Your task to perform on an android device: Search for Italian restaurants on Maps Image 0: 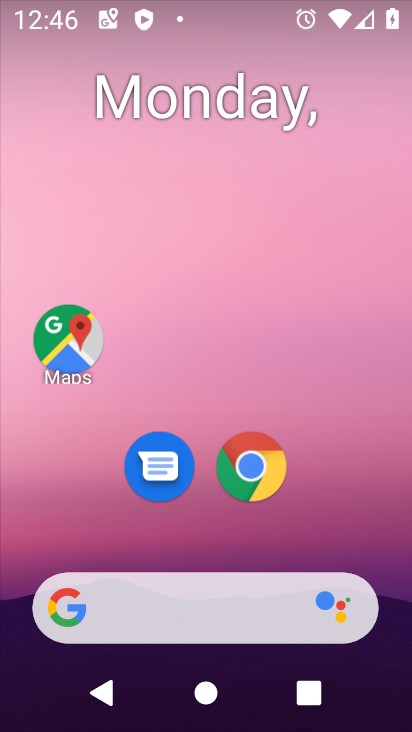
Step 0: drag from (387, 623) to (338, 66)
Your task to perform on an android device: Search for Italian restaurants on Maps Image 1: 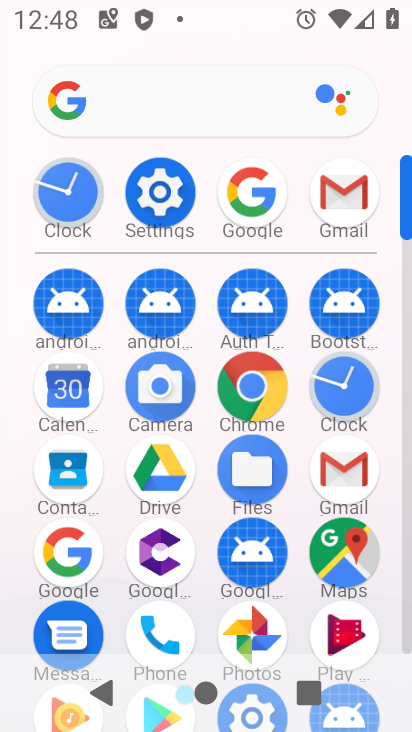
Step 1: click (349, 577)
Your task to perform on an android device: Search for Italian restaurants on Maps Image 2: 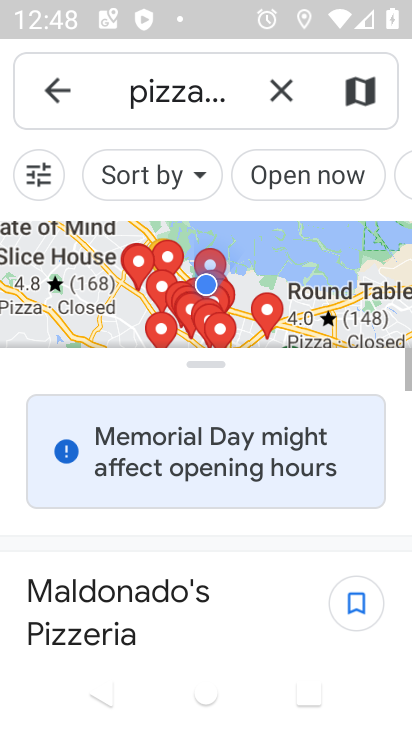
Step 2: click (298, 100)
Your task to perform on an android device: Search for Italian restaurants on Maps Image 3: 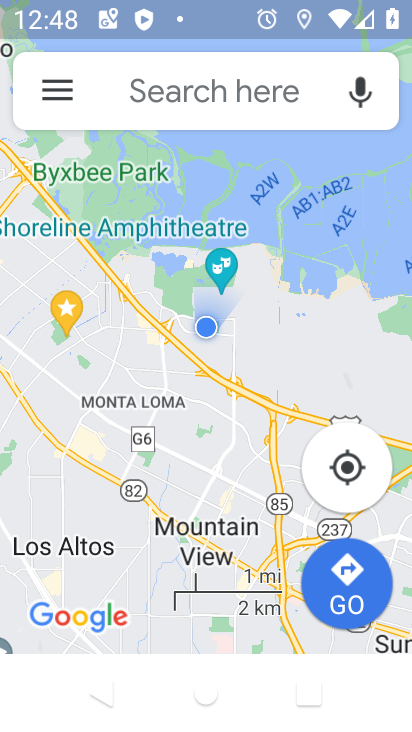
Step 3: click (140, 75)
Your task to perform on an android device: Search for Italian restaurants on Maps Image 4: 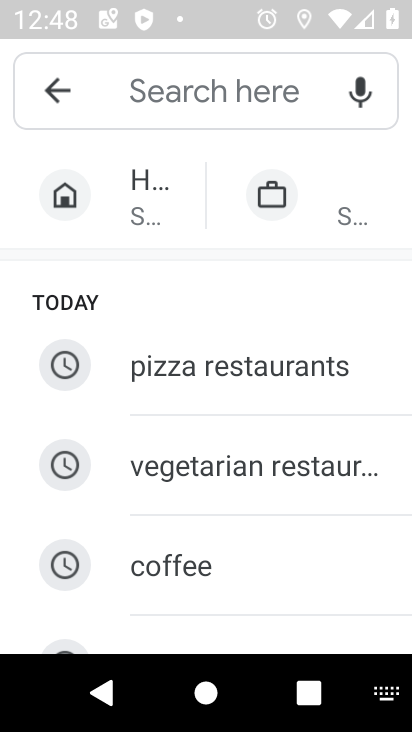
Step 4: drag from (154, 556) to (208, 110)
Your task to perform on an android device: Search for Italian restaurants on Maps Image 5: 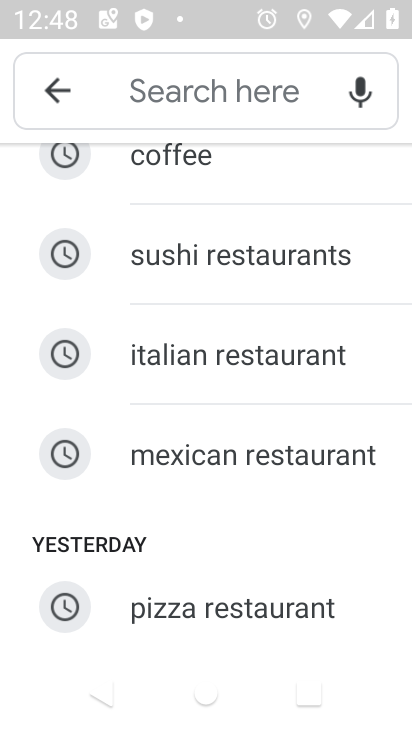
Step 5: click (206, 383)
Your task to perform on an android device: Search for Italian restaurants on Maps Image 6: 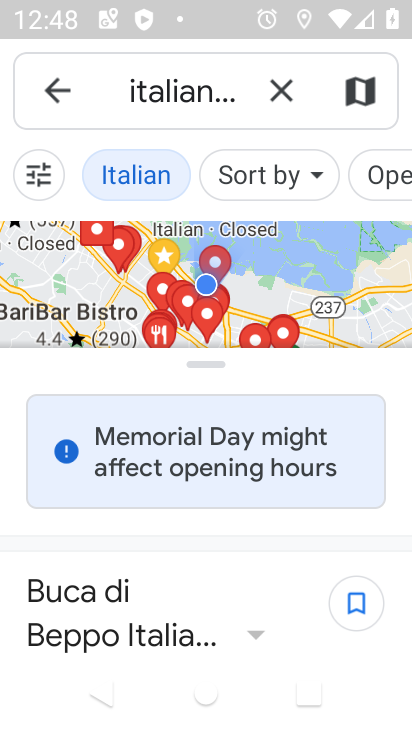
Step 6: task complete